Your task to perform on an android device: change notifications settings Image 0: 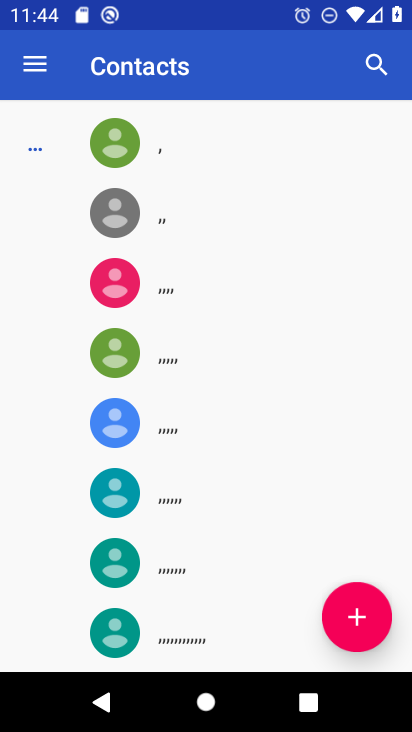
Step 0: press home button
Your task to perform on an android device: change notifications settings Image 1: 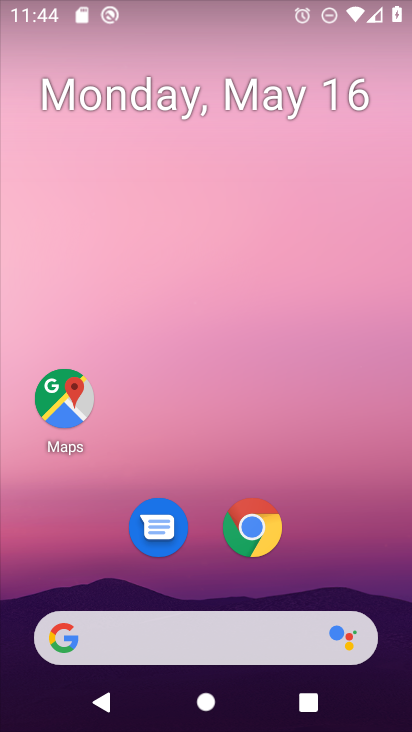
Step 1: drag from (350, 568) to (353, 23)
Your task to perform on an android device: change notifications settings Image 2: 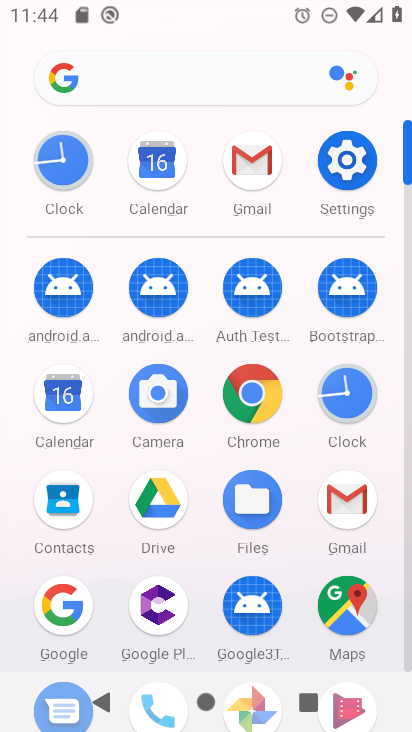
Step 2: click (348, 162)
Your task to perform on an android device: change notifications settings Image 3: 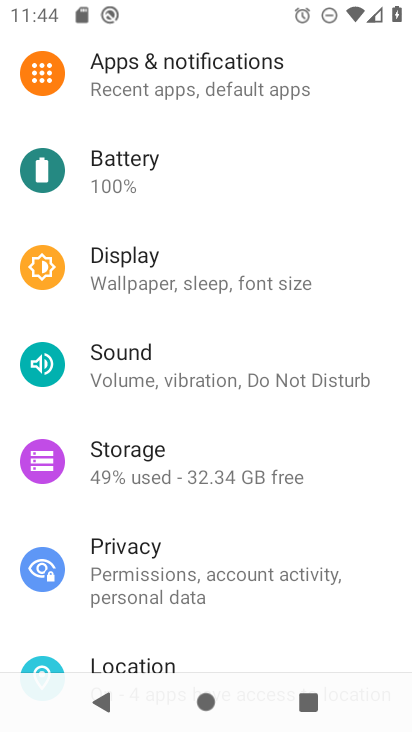
Step 3: click (200, 85)
Your task to perform on an android device: change notifications settings Image 4: 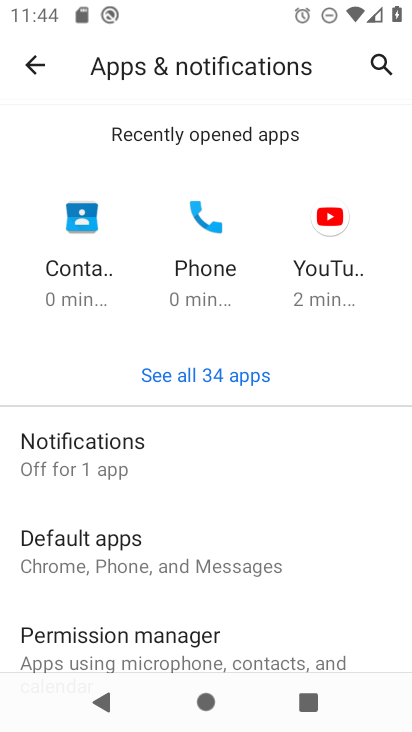
Step 4: click (88, 457)
Your task to perform on an android device: change notifications settings Image 5: 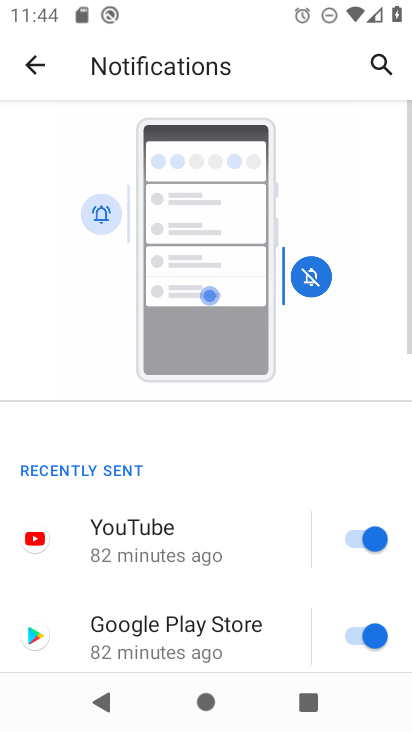
Step 5: drag from (201, 529) to (219, 63)
Your task to perform on an android device: change notifications settings Image 6: 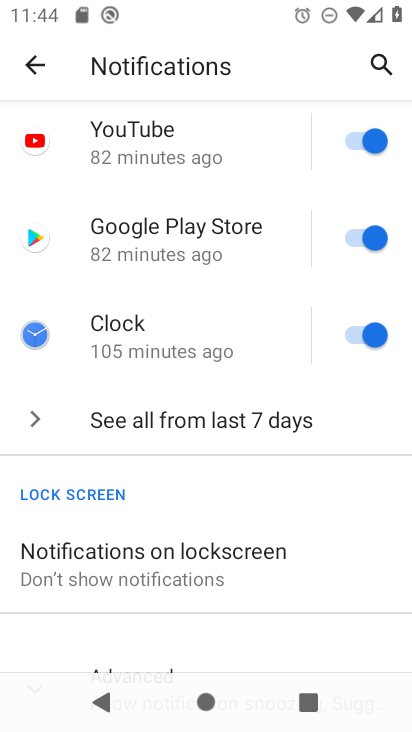
Step 6: drag from (166, 361) to (180, 204)
Your task to perform on an android device: change notifications settings Image 7: 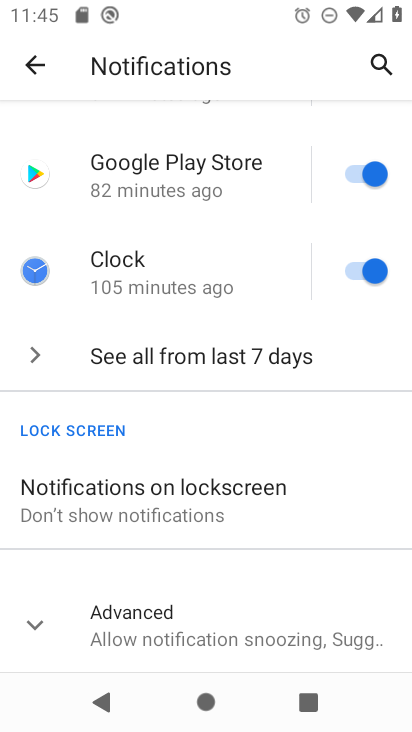
Step 7: click (181, 357)
Your task to perform on an android device: change notifications settings Image 8: 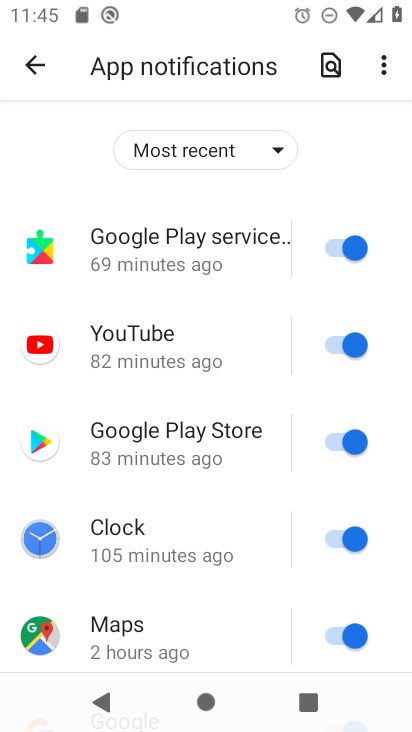
Step 8: click (280, 145)
Your task to perform on an android device: change notifications settings Image 9: 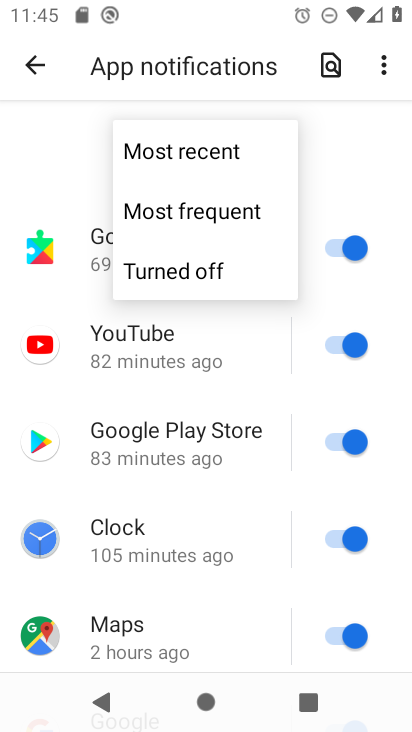
Step 9: click (150, 209)
Your task to perform on an android device: change notifications settings Image 10: 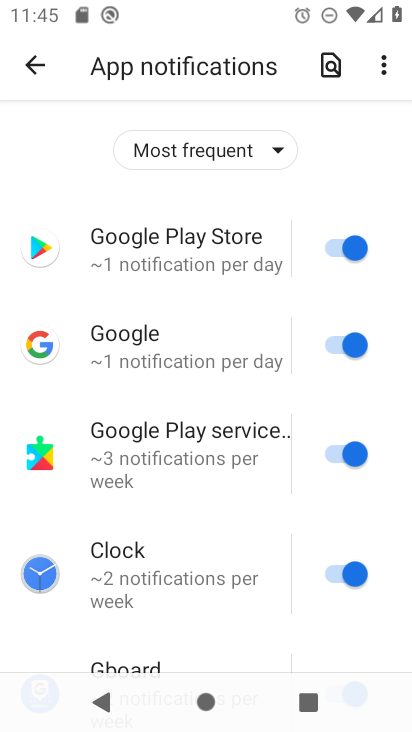
Step 10: task complete